Your task to perform on an android device: Go to Reddit.com Image 0: 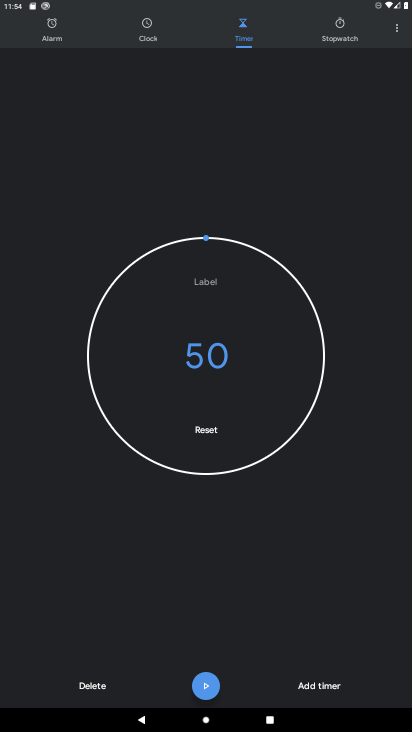
Step 0: press home button
Your task to perform on an android device: Go to Reddit.com Image 1: 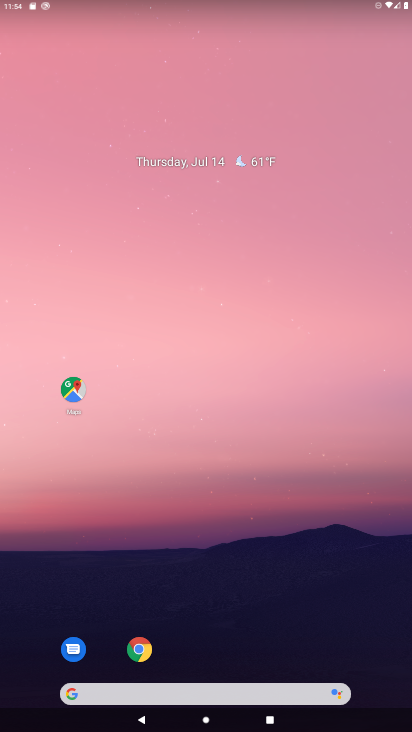
Step 1: click (142, 651)
Your task to perform on an android device: Go to Reddit.com Image 2: 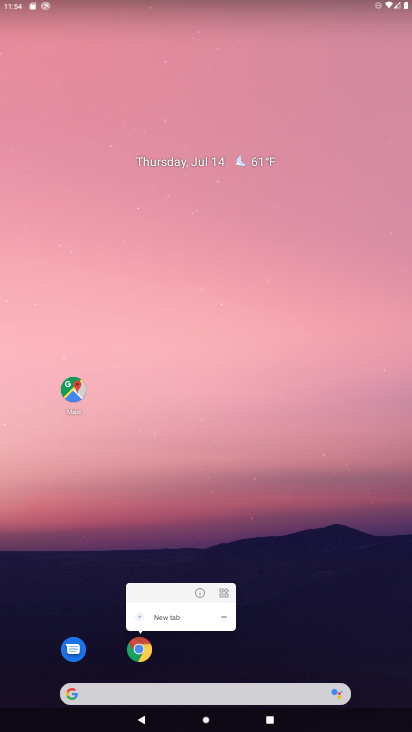
Step 2: click (138, 657)
Your task to perform on an android device: Go to Reddit.com Image 3: 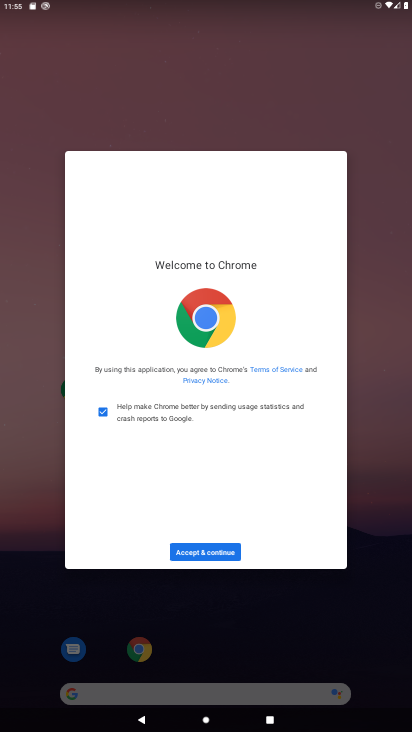
Step 3: click (188, 546)
Your task to perform on an android device: Go to Reddit.com Image 4: 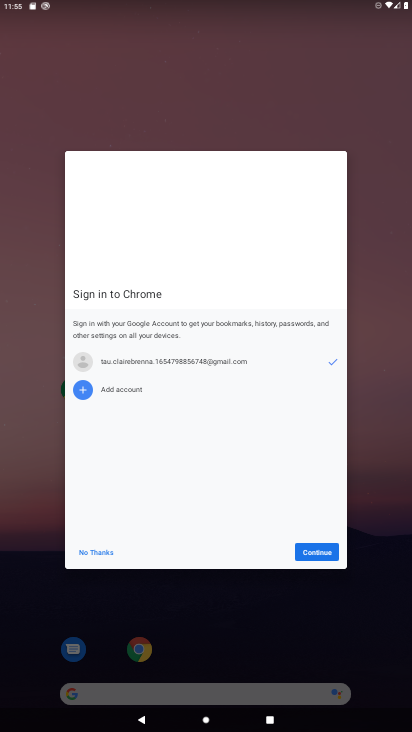
Step 4: click (92, 552)
Your task to perform on an android device: Go to Reddit.com Image 5: 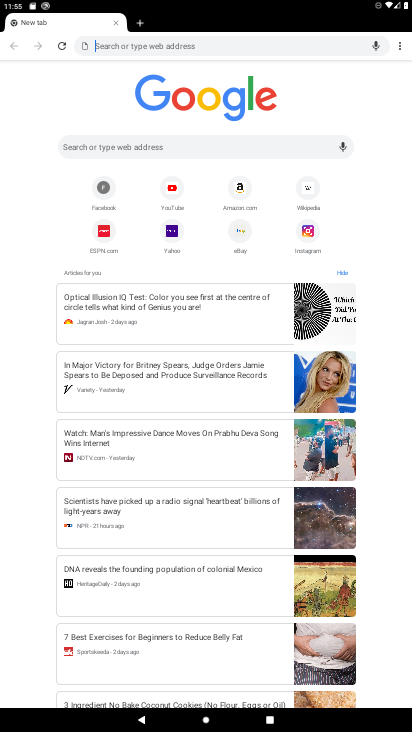
Step 5: click (152, 49)
Your task to perform on an android device: Go to Reddit.com Image 6: 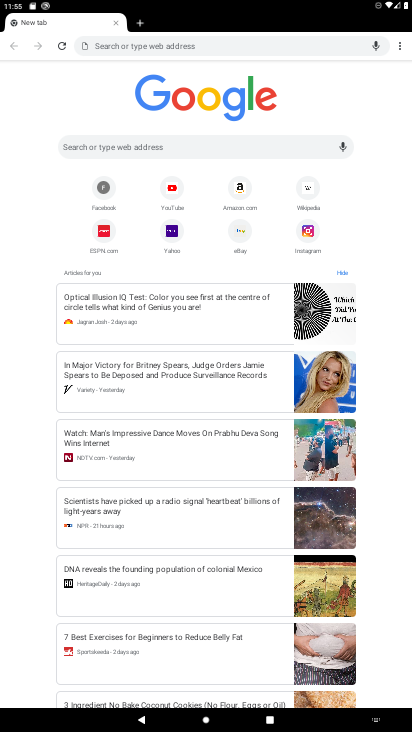
Step 6: type "reddit.com"
Your task to perform on an android device: Go to Reddit.com Image 7: 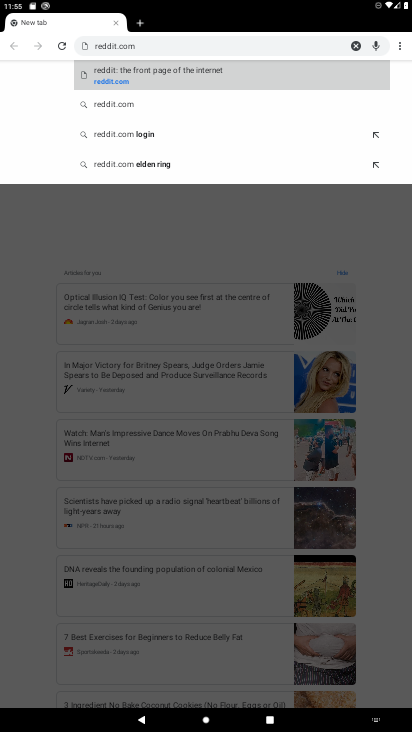
Step 7: click (119, 112)
Your task to perform on an android device: Go to Reddit.com Image 8: 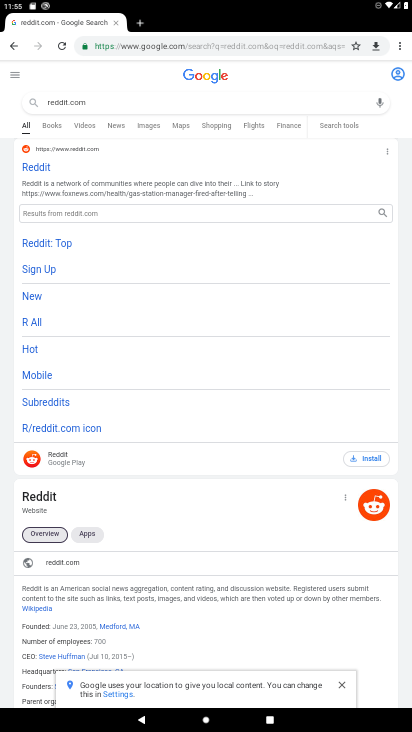
Step 8: click (39, 170)
Your task to perform on an android device: Go to Reddit.com Image 9: 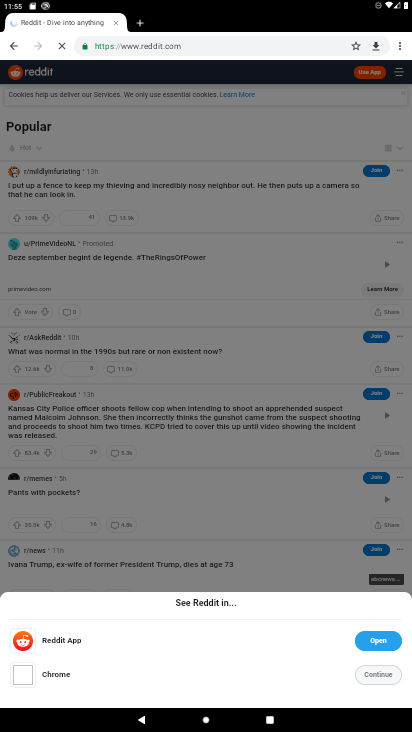
Step 9: task complete